Your task to perform on an android device: turn on wifi Image 0: 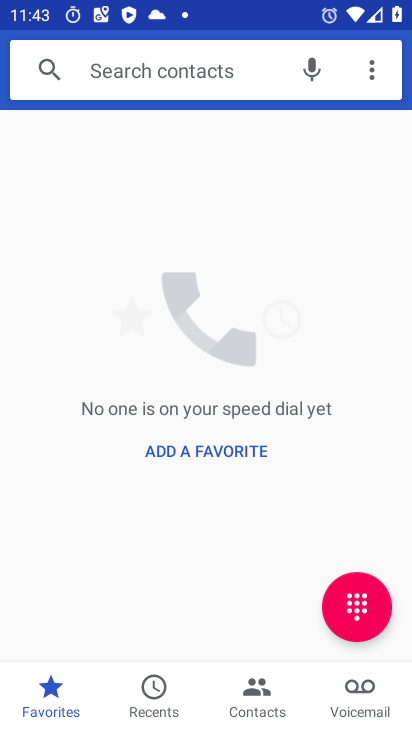
Step 0: drag from (361, 656) to (253, 133)
Your task to perform on an android device: turn on wifi Image 1: 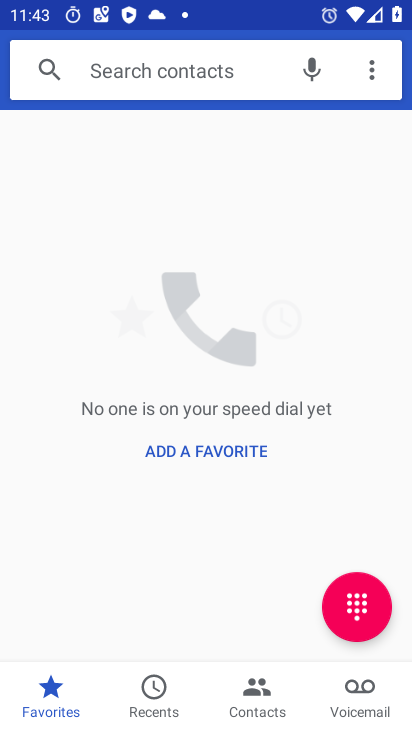
Step 1: press home button
Your task to perform on an android device: turn on wifi Image 2: 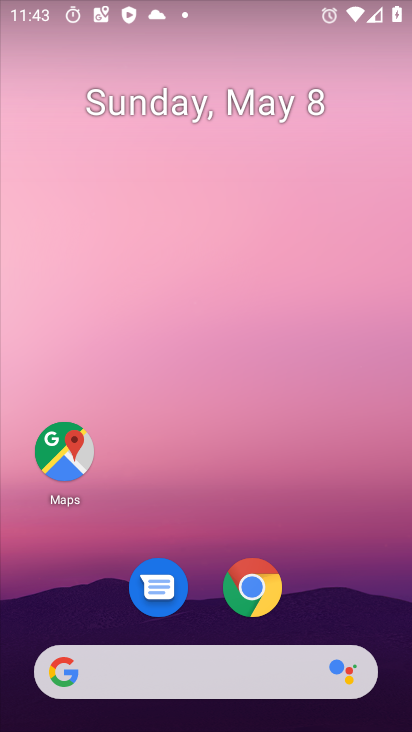
Step 2: drag from (172, 26) to (193, 722)
Your task to perform on an android device: turn on wifi Image 3: 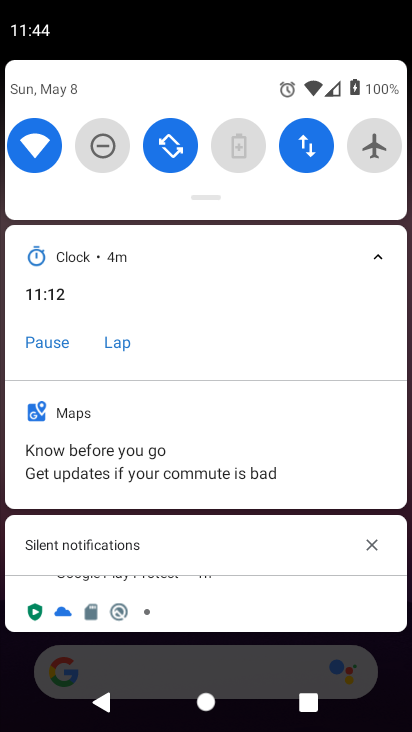
Step 3: click (351, 160)
Your task to perform on an android device: turn on wifi Image 4: 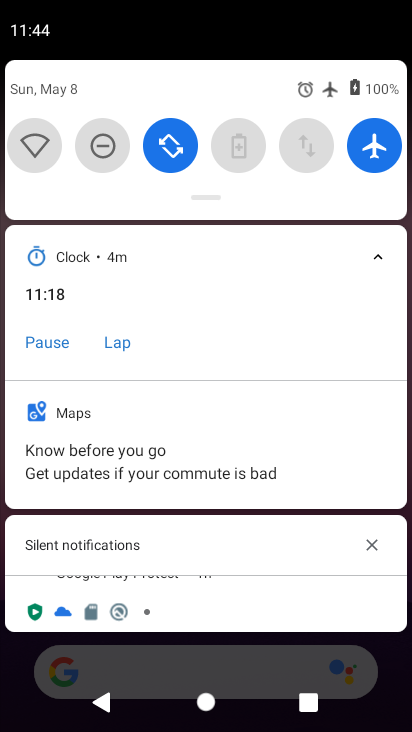
Step 4: press home button
Your task to perform on an android device: turn on wifi Image 5: 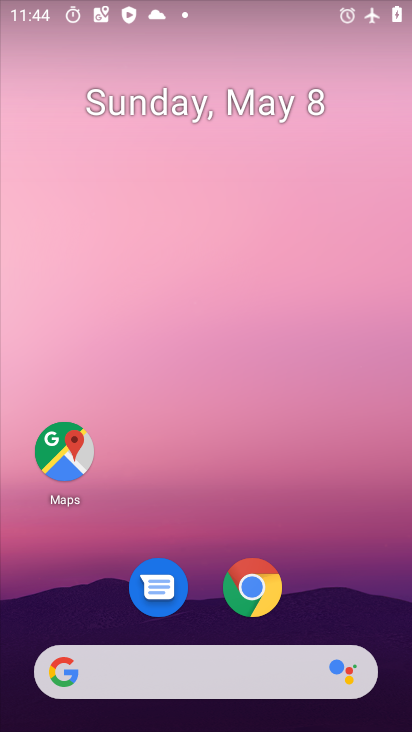
Step 5: drag from (287, 561) to (80, 57)
Your task to perform on an android device: turn on wifi Image 6: 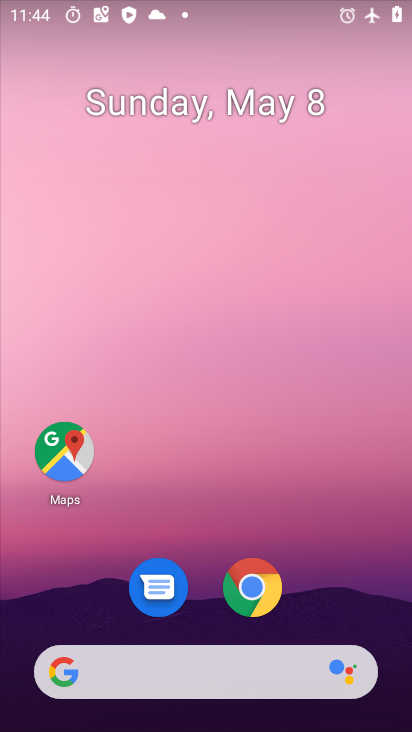
Step 6: drag from (329, 559) to (157, 38)
Your task to perform on an android device: turn on wifi Image 7: 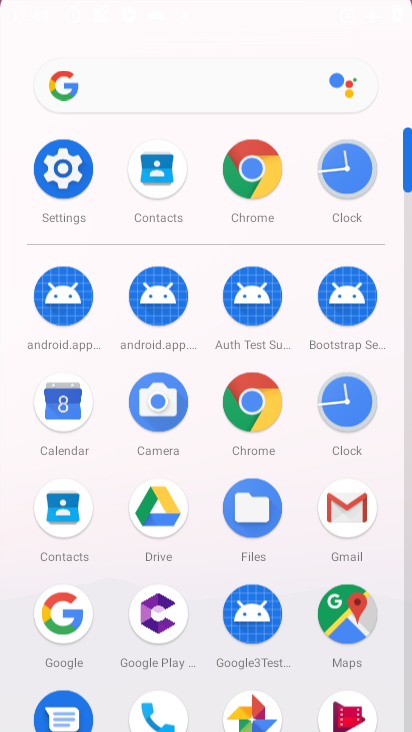
Step 7: drag from (279, 460) to (55, 9)
Your task to perform on an android device: turn on wifi Image 8: 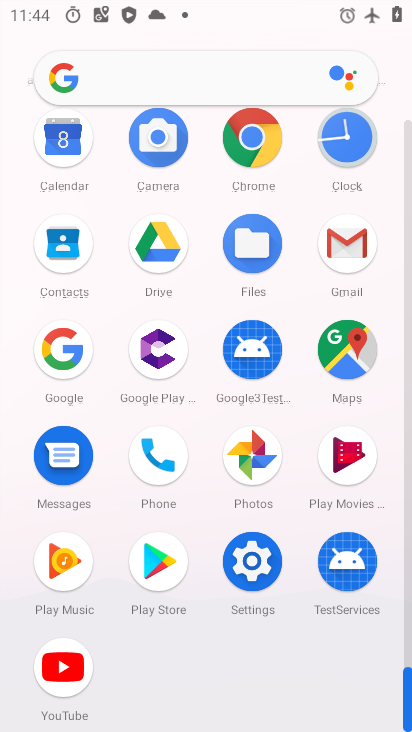
Step 8: click (254, 554)
Your task to perform on an android device: turn on wifi Image 9: 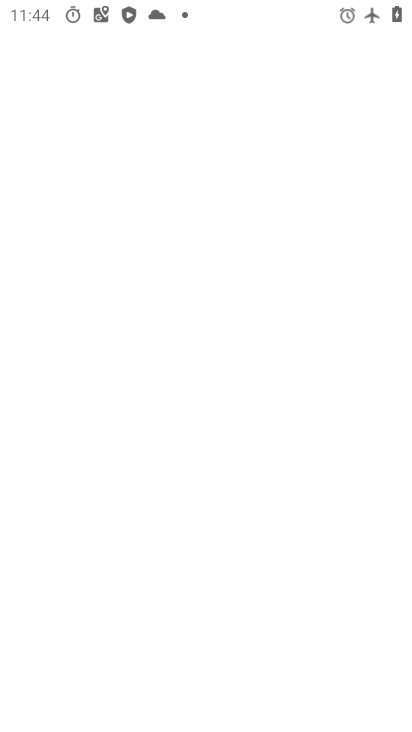
Step 9: click (257, 575)
Your task to perform on an android device: turn on wifi Image 10: 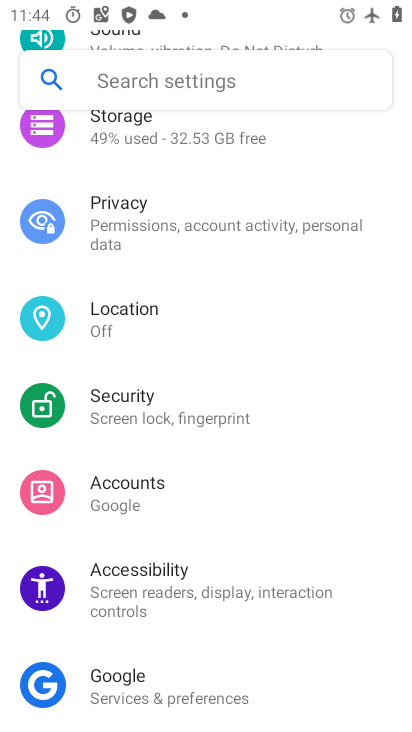
Step 10: drag from (157, 198) to (210, 487)
Your task to perform on an android device: turn on wifi Image 11: 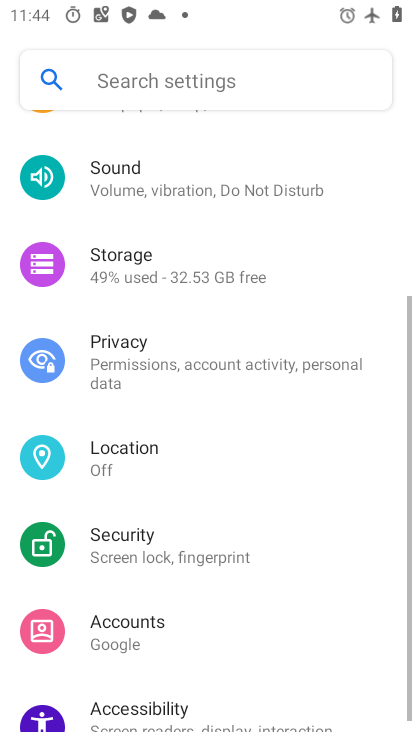
Step 11: drag from (255, 292) to (334, 573)
Your task to perform on an android device: turn on wifi Image 12: 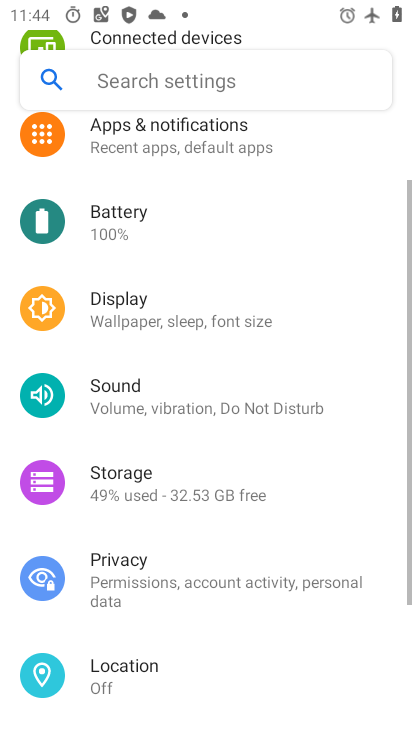
Step 12: drag from (270, 357) to (270, 591)
Your task to perform on an android device: turn on wifi Image 13: 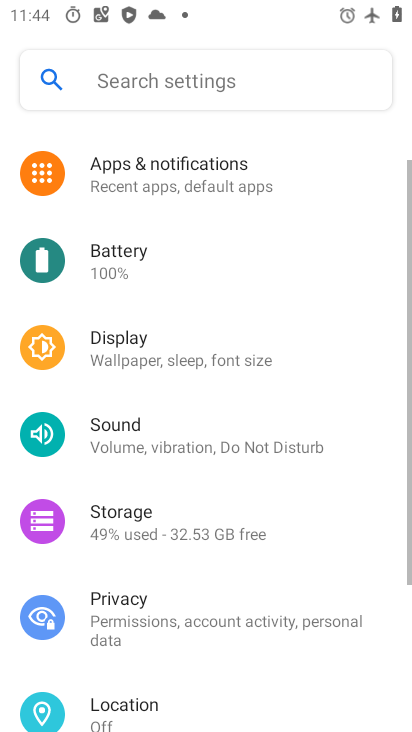
Step 13: drag from (189, 240) to (236, 580)
Your task to perform on an android device: turn on wifi Image 14: 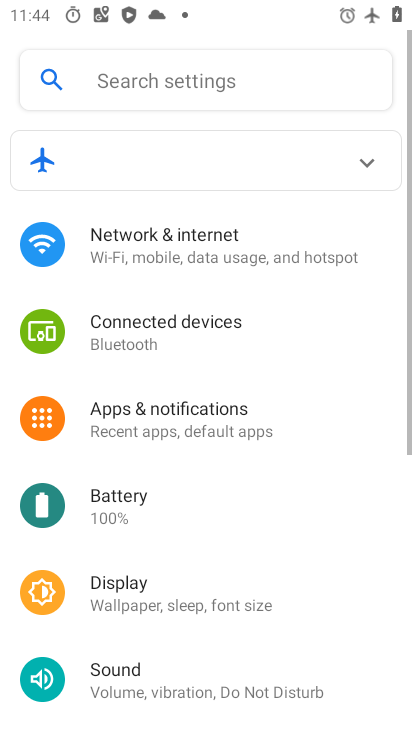
Step 14: drag from (135, 191) to (153, 618)
Your task to perform on an android device: turn on wifi Image 15: 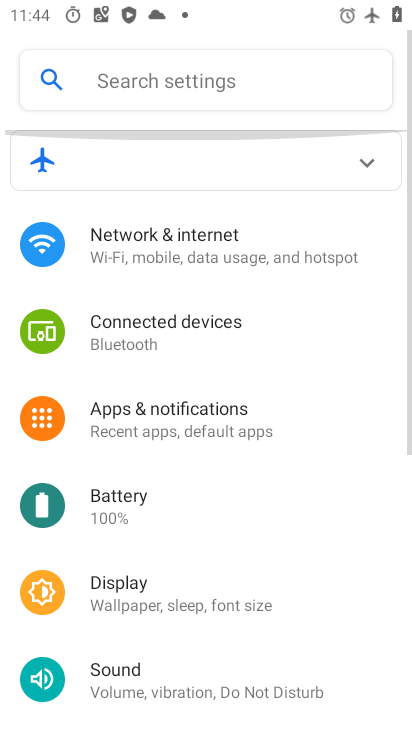
Step 15: drag from (100, 194) to (218, 619)
Your task to perform on an android device: turn on wifi Image 16: 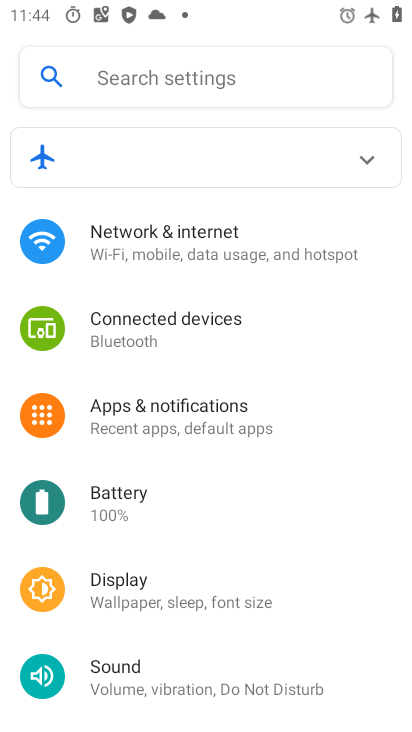
Step 16: click (194, 251)
Your task to perform on an android device: turn on wifi Image 17: 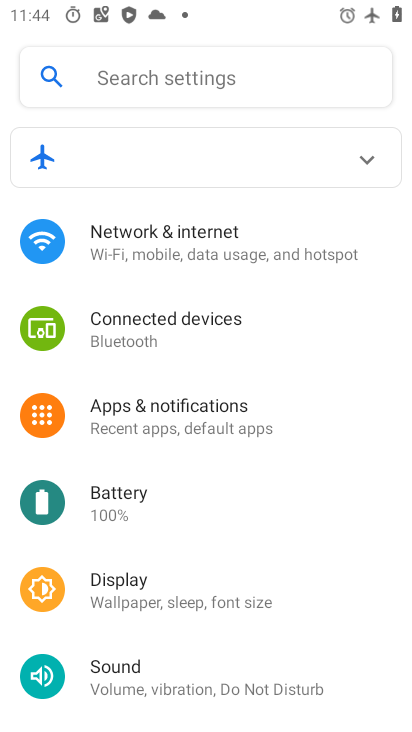
Step 17: click (191, 244)
Your task to perform on an android device: turn on wifi Image 18: 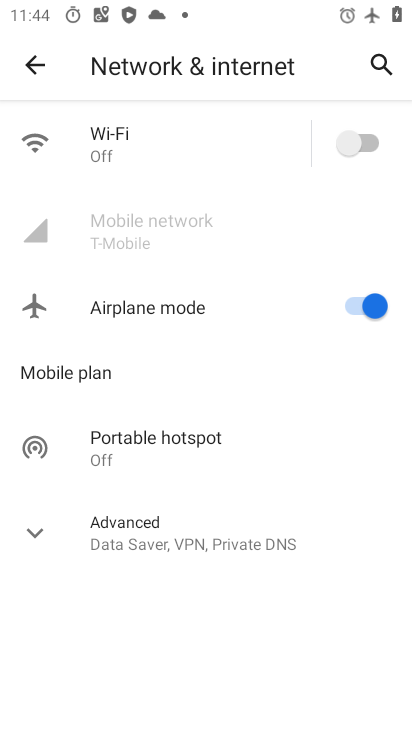
Step 18: click (357, 137)
Your task to perform on an android device: turn on wifi Image 19: 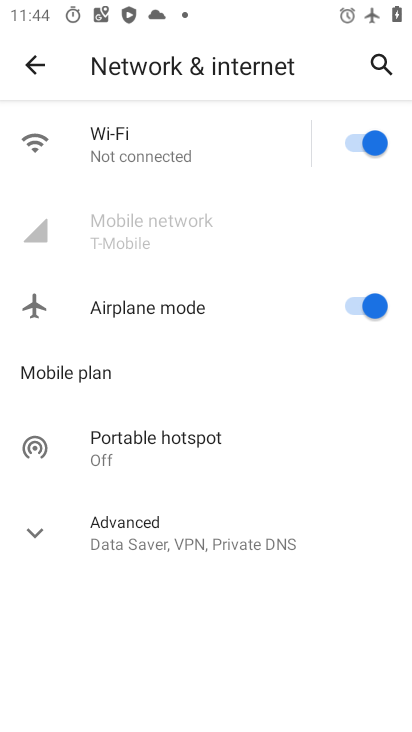
Step 19: task complete